Your task to perform on an android device: open a bookmark in the chrome app Image 0: 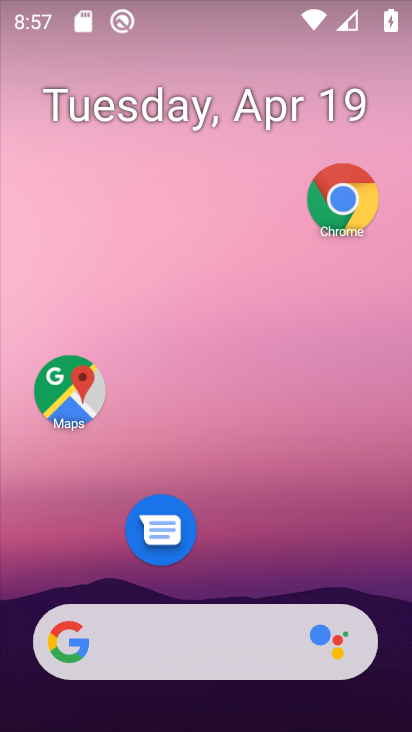
Step 0: click (237, 51)
Your task to perform on an android device: open a bookmark in the chrome app Image 1: 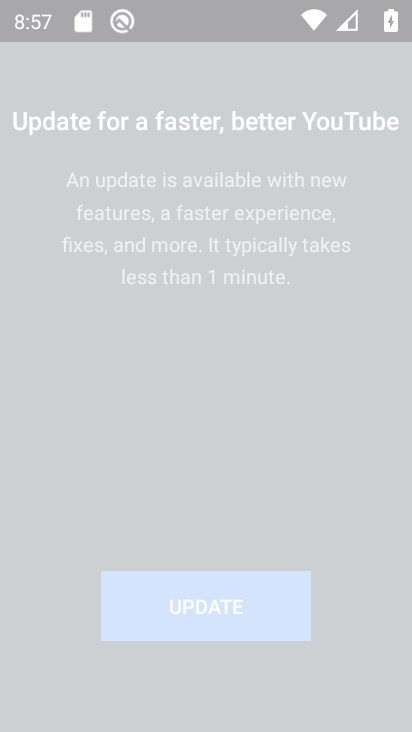
Step 1: drag from (201, 572) to (221, 113)
Your task to perform on an android device: open a bookmark in the chrome app Image 2: 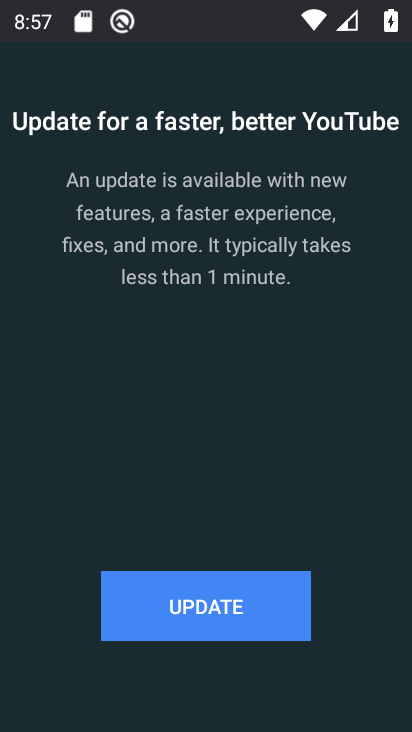
Step 2: press home button
Your task to perform on an android device: open a bookmark in the chrome app Image 3: 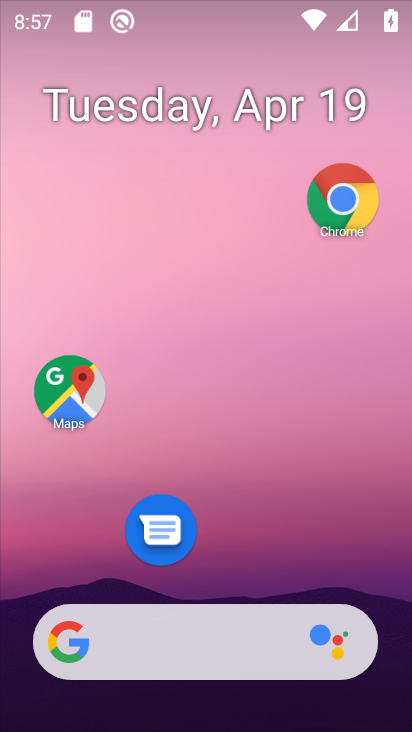
Step 3: drag from (230, 579) to (336, 130)
Your task to perform on an android device: open a bookmark in the chrome app Image 4: 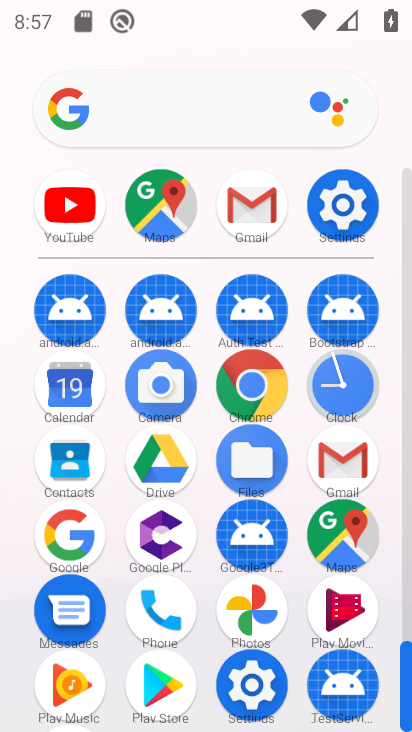
Step 4: click (247, 388)
Your task to perform on an android device: open a bookmark in the chrome app Image 5: 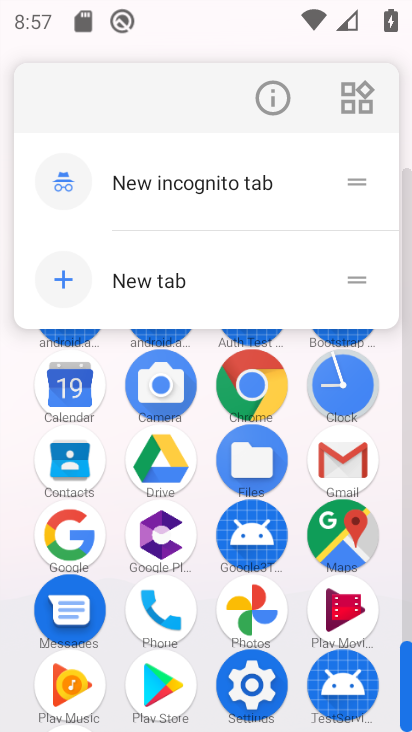
Step 5: click (276, 95)
Your task to perform on an android device: open a bookmark in the chrome app Image 6: 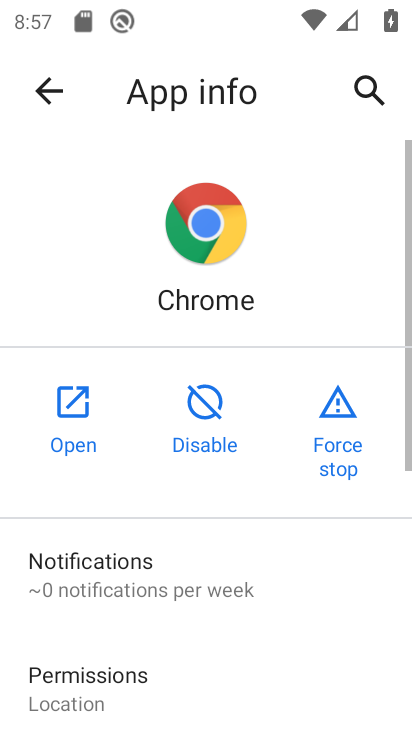
Step 6: click (68, 392)
Your task to perform on an android device: open a bookmark in the chrome app Image 7: 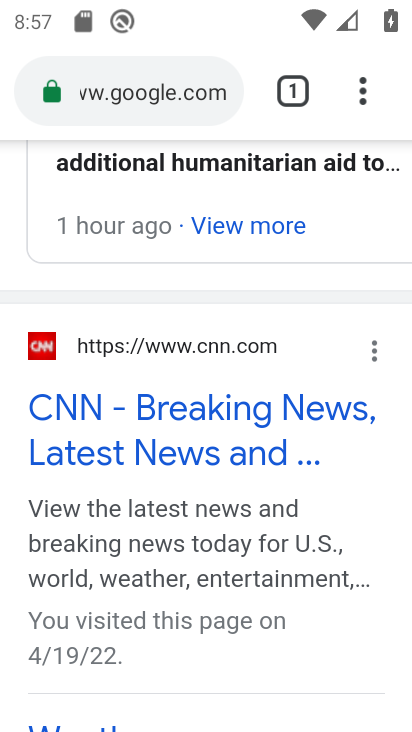
Step 7: drag from (292, 177) to (336, 697)
Your task to perform on an android device: open a bookmark in the chrome app Image 8: 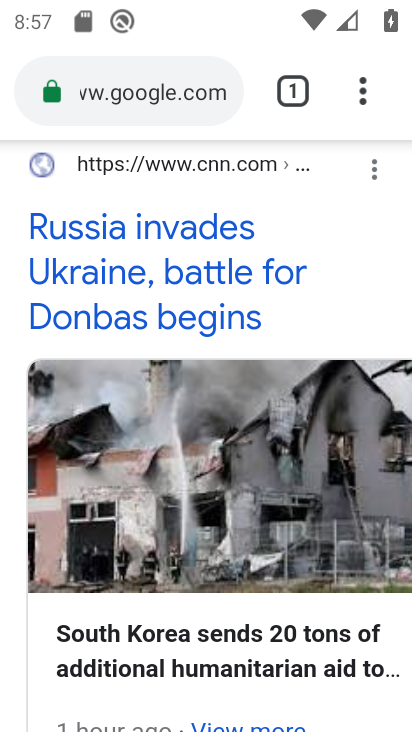
Step 8: click (358, 87)
Your task to perform on an android device: open a bookmark in the chrome app Image 9: 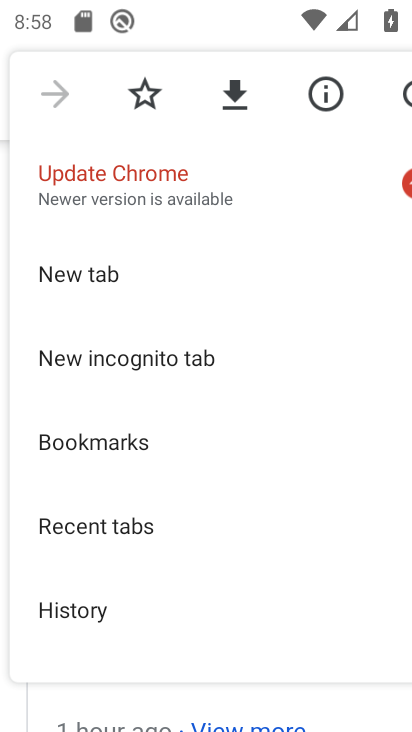
Step 9: click (88, 444)
Your task to perform on an android device: open a bookmark in the chrome app Image 10: 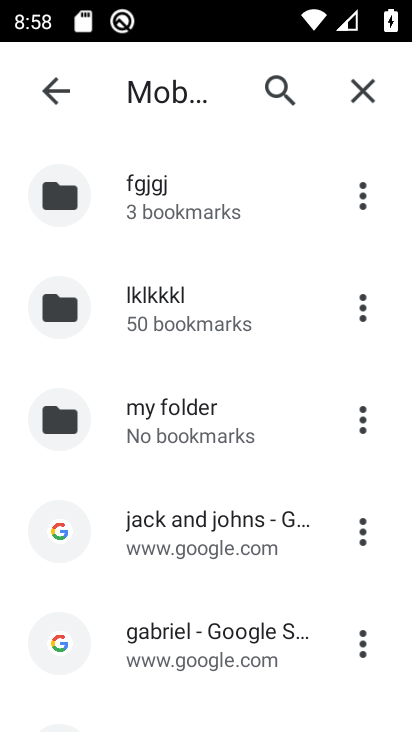
Step 10: task complete